Your task to perform on an android device: Show me recent news Image 0: 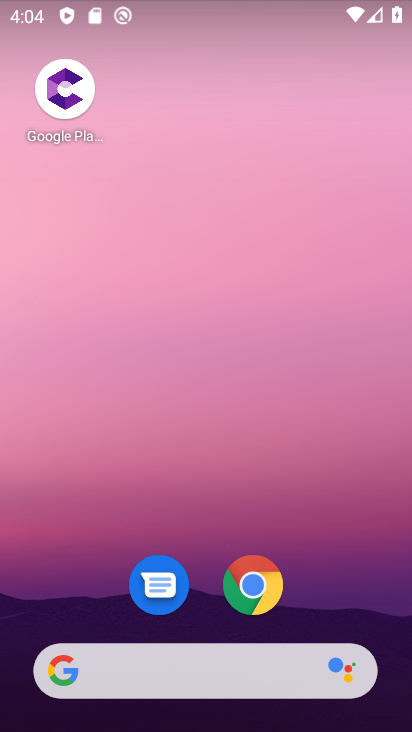
Step 0: click (211, 662)
Your task to perform on an android device: Show me recent news Image 1: 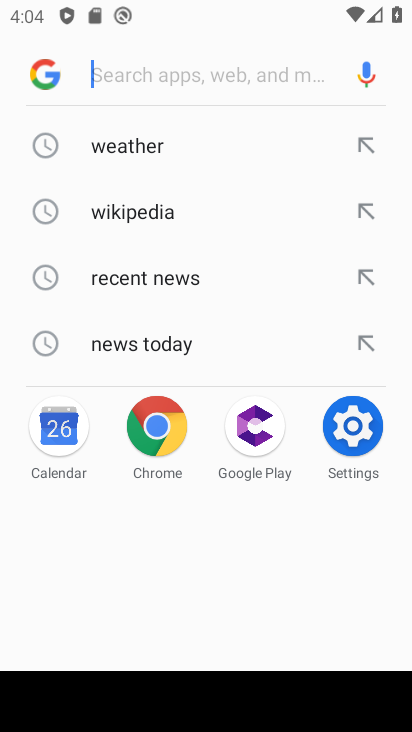
Step 1: press home button
Your task to perform on an android device: Show me recent news Image 2: 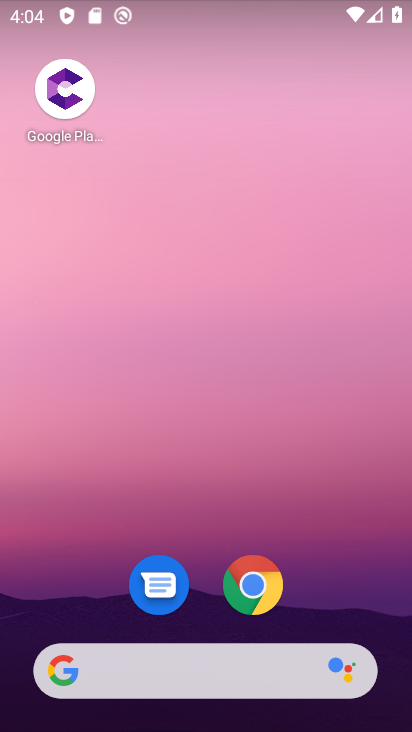
Step 2: click (264, 668)
Your task to perform on an android device: Show me recent news Image 3: 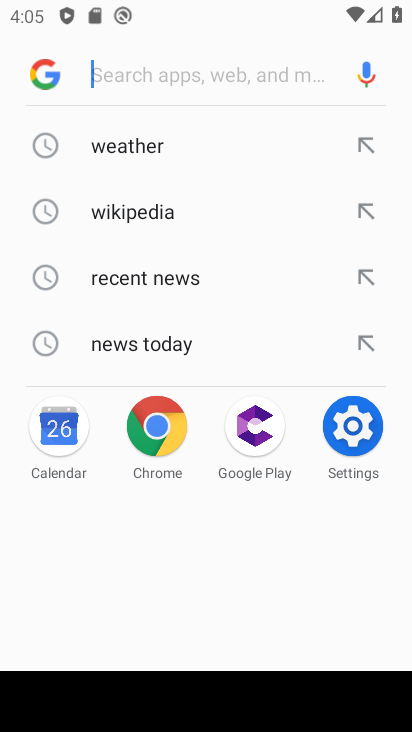
Step 3: click (172, 277)
Your task to perform on an android device: Show me recent news Image 4: 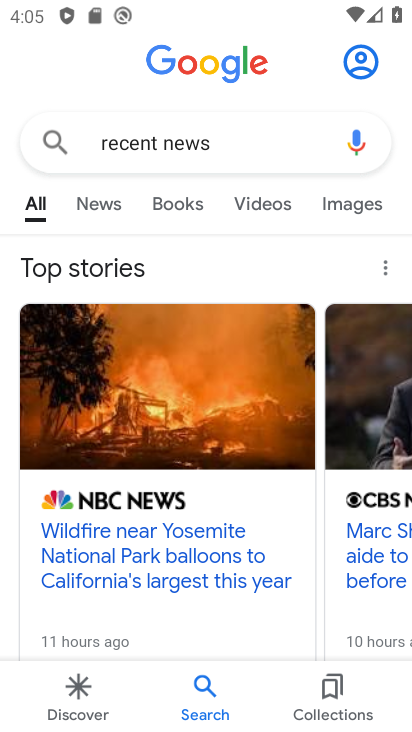
Step 4: click (107, 196)
Your task to perform on an android device: Show me recent news Image 5: 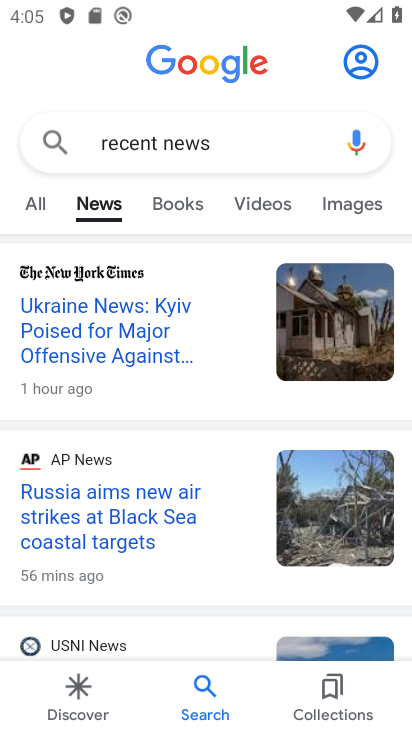
Step 5: drag from (180, 514) to (167, 178)
Your task to perform on an android device: Show me recent news Image 6: 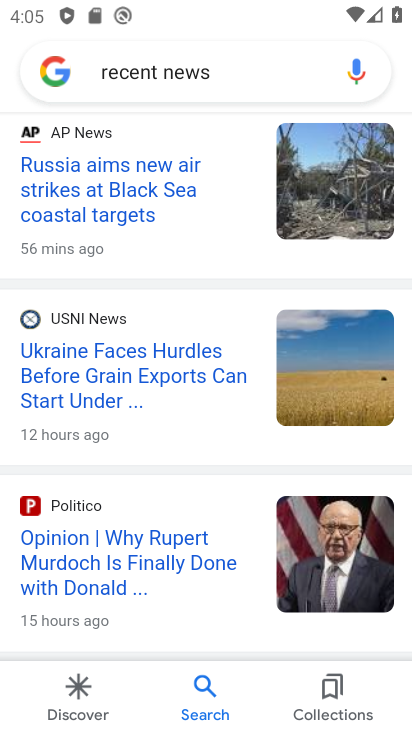
Step 6: drag from (145, 415) to (160, 158)
Your task to perform on an android device: Show me recent news Image 7: 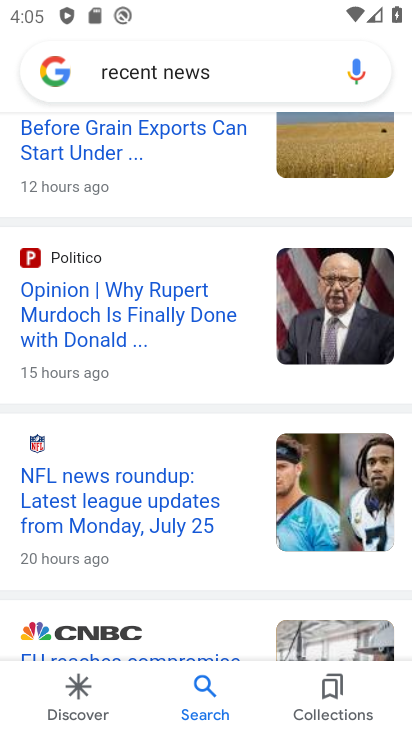
Step 7: drag from (152, 444) to (154, 203)
Your task to perform on an android device: Show me recent news Image 8: 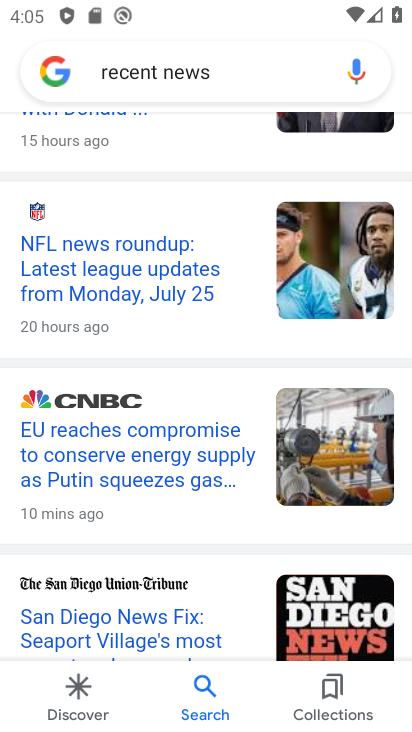
Step 8: drag from (188, 460) to (165, 131)
Your task to perform on an android device: Show me recent news Image 9: 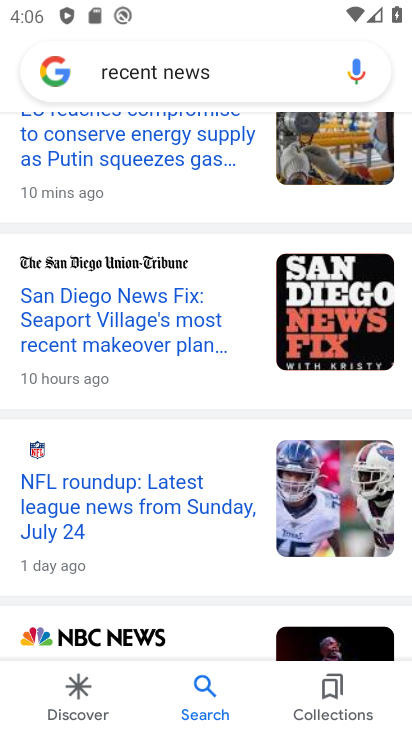
Step 9: drag from (189, 435) to (173, 132)
Your task to perform on an android device: Show me recent news Image 10: 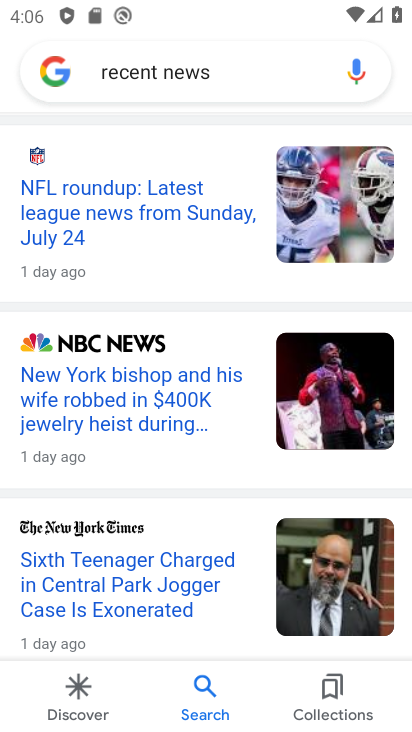
Step 10: click (165, 396)
Your task to perform on an android device: Show me recent news Image 11: 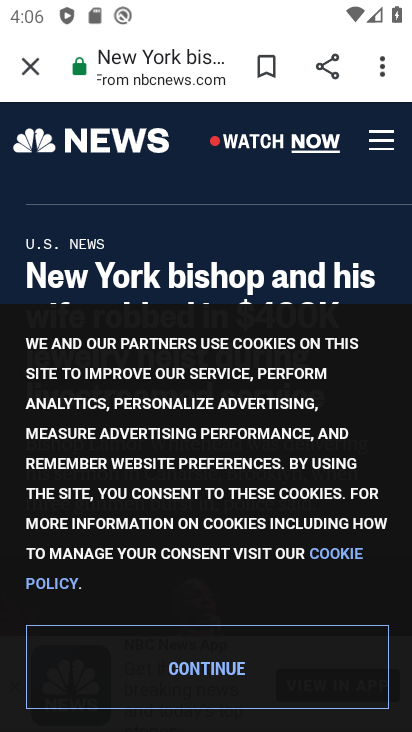
Step 11: click (230, 663)
Your task to perform on an android device: Show me recent news Image 12: 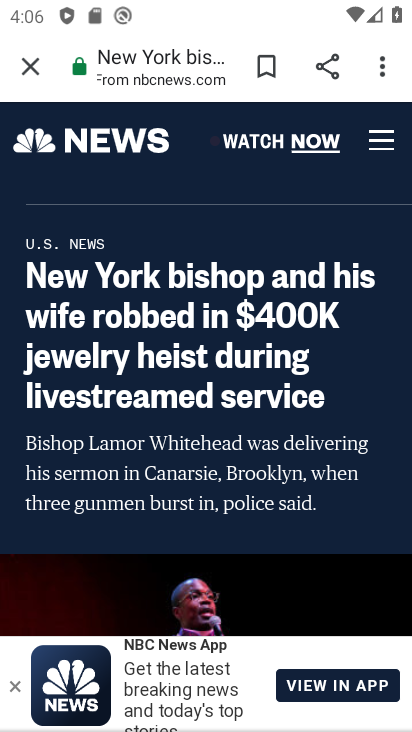
Step 12: task complete